Your task to perform on an android device: delete a single message in the gmail app Image 0: 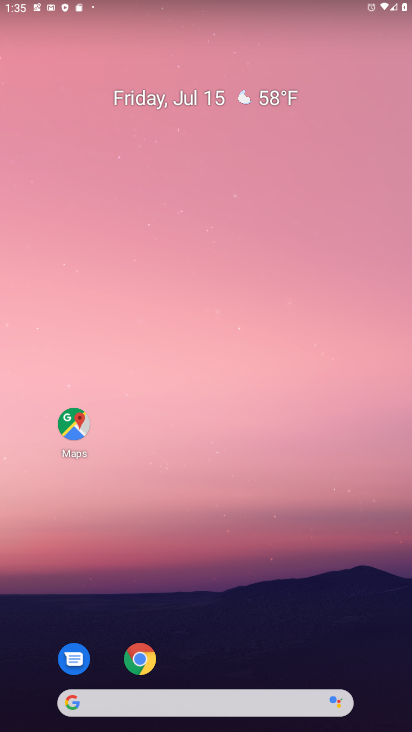
Step 0: drag from (185, 718) to (193, 129)
Your task to perform on an android device: delete a single message in the gmail app Image 1: 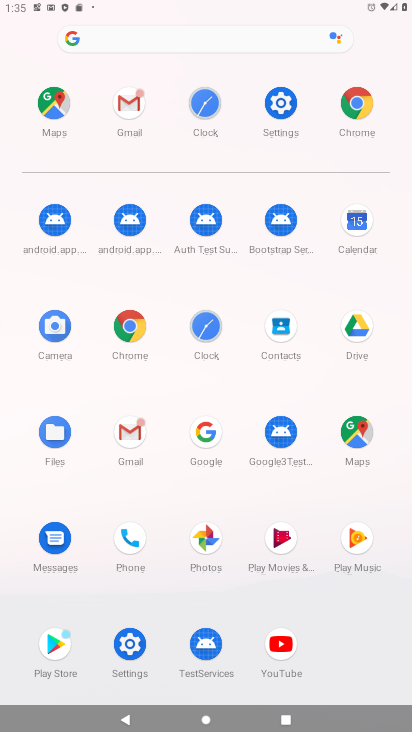
Step 1: click (142, 422)
Your task to perform on an android device: delete a single message in the gmail app Image 2: 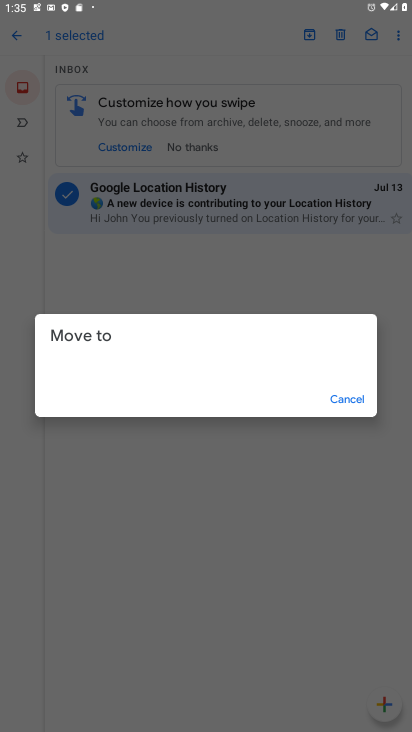
Step 2: click (338, 395)
Your task to perform on an android device: delete a single message in the gmail app Image 3: 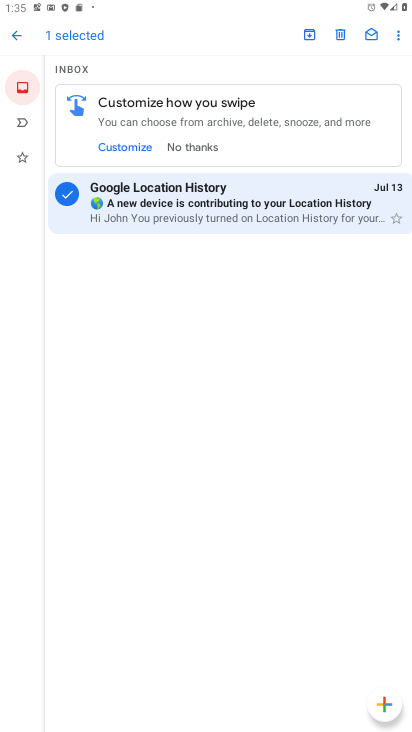
Step 3: click (341, 34)
Your task to perform on an android device: delete a single message in the gmail app Image 4: 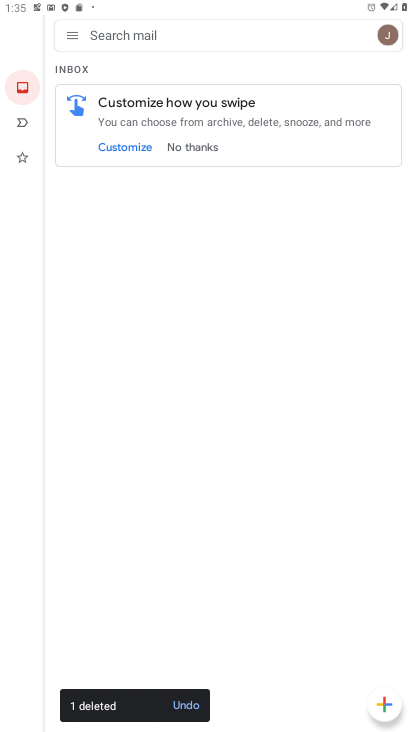
Step 4: task complete